Your task to perform on an android device: move a message to another label in the gmail app Image 0: 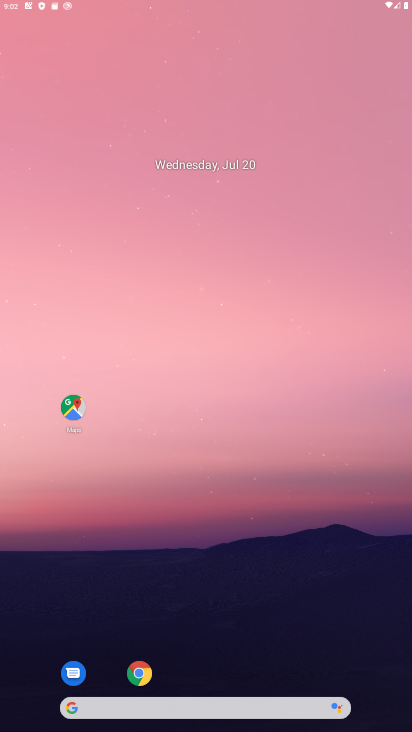
Step 0: click (284, 153)
Your task to perform on an android device: move a message to another label in the gmail app Image 1: 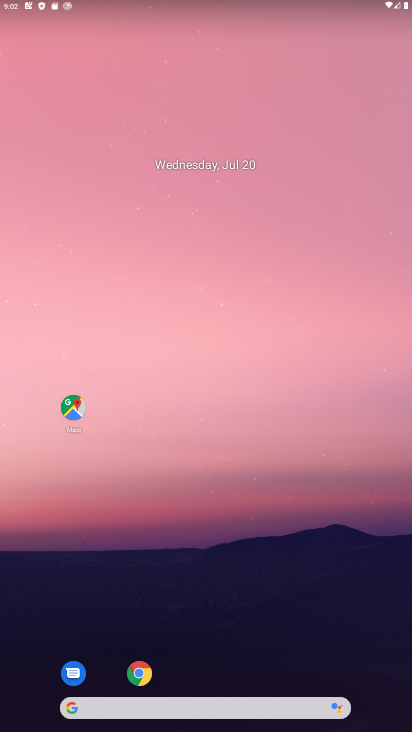
Step 1: drag from (177, 667) to (232, 108)
Your task to perform on an android device: move a message to another label in the gmail app Image 2: 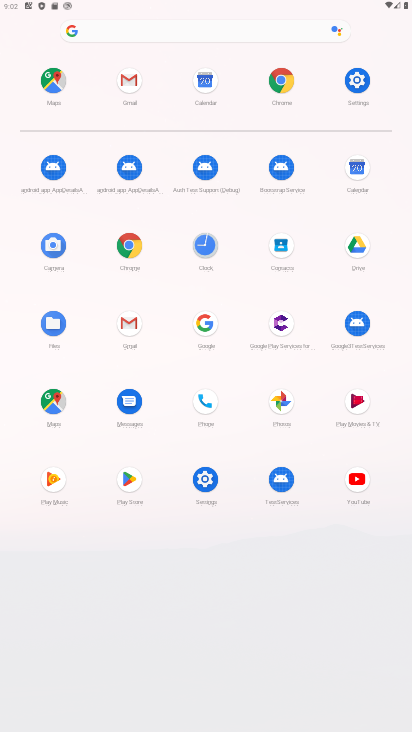
Step 2: click (123, 322)
Your task to perform on an android device: move a message to another label in the gmail app Image 3: 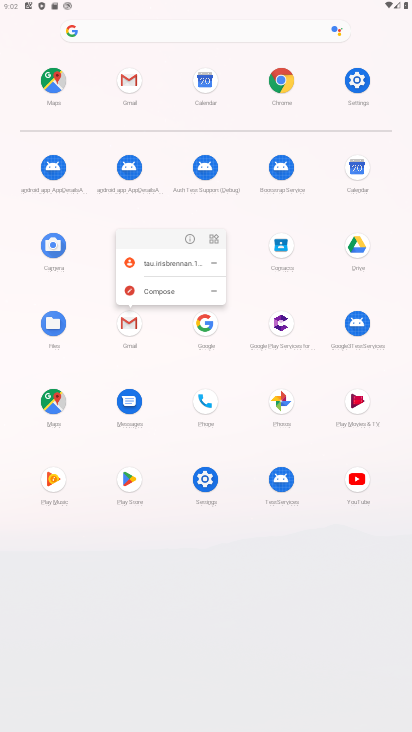
Step 3: click (186, 238)
Your task to perform on an android device: move a message to another label in the gmail app Image 4: 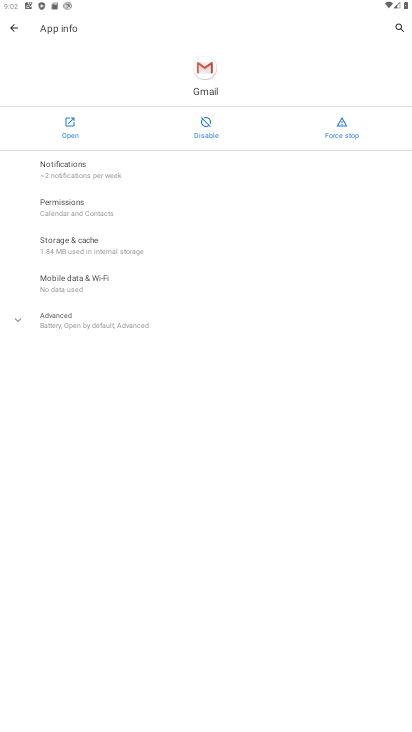
Step 4: click (69, 123)
Your task to perform on an android device: move a message to another label in the gmail app Image 5: 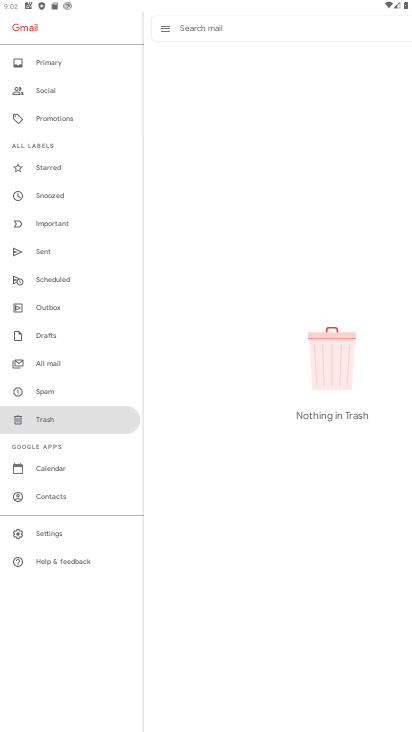
Step 5: click (206, 407)
Your task to perform on an android device: move a message to another label in the gmail app Image 6: 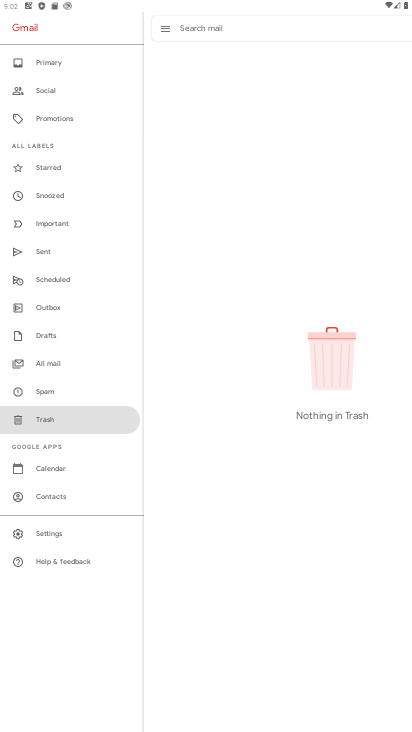
Step 6: task complete